Your task to perform on an android device: change the upload size in google photos Image 0: 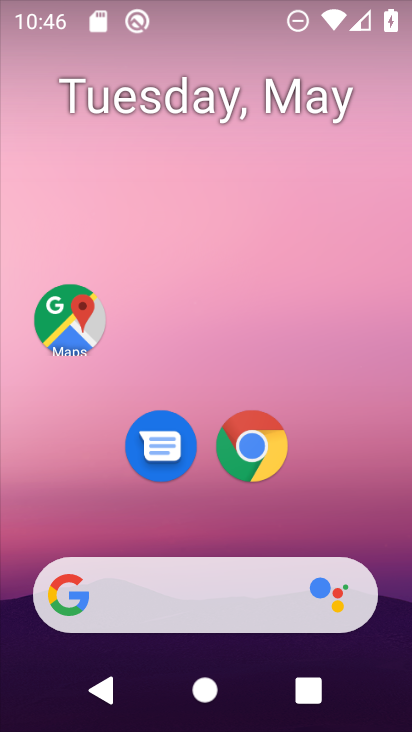
Step 0: drag from (198, 550) to (269, 3)
Your task to perform on an android device: change the upload size in google photos Image 1: 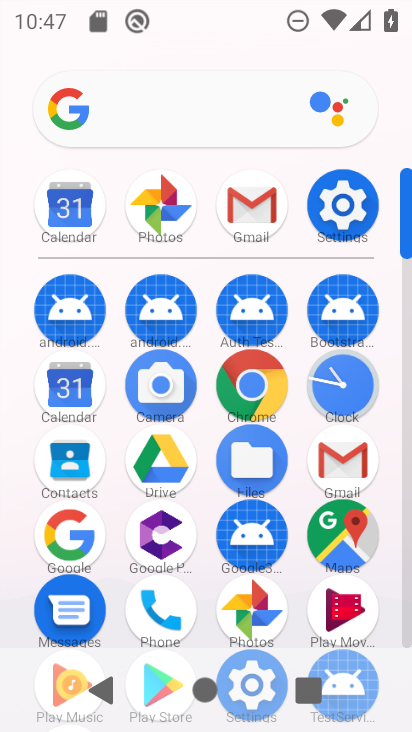
Step 1: click (260, 607)
Your task to perform on an android device: change the upload size in google photos Image 2: 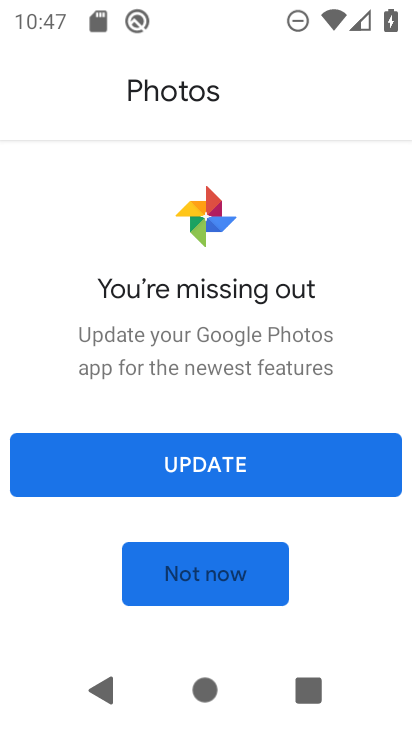
Step 2: click (195, 577)
Your task to perform on an android device: change the upload size in google photos Image 3: 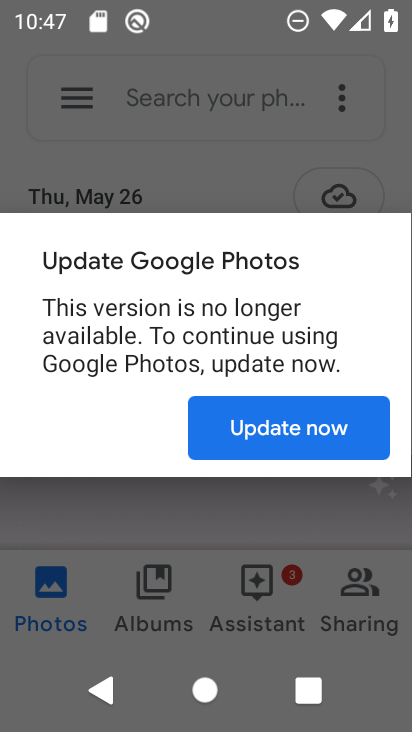
Step 3: click (272, 430)
Your task to perform on an android device: change the upload size in google photos Image 4: 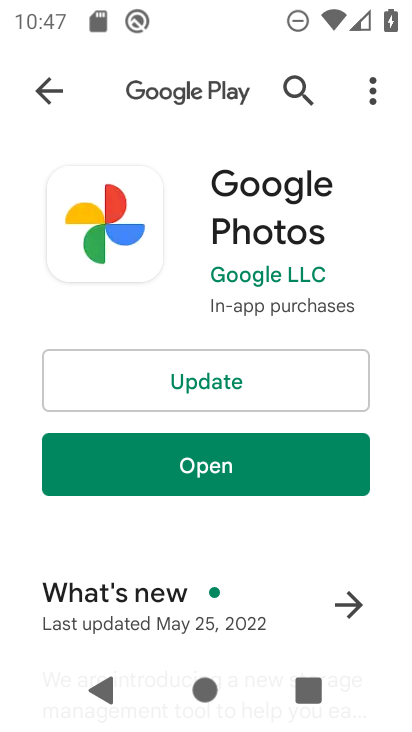
Step 4: click (257, 469)
Your task to perform on an android device: change the upload size in google photos Image 5: 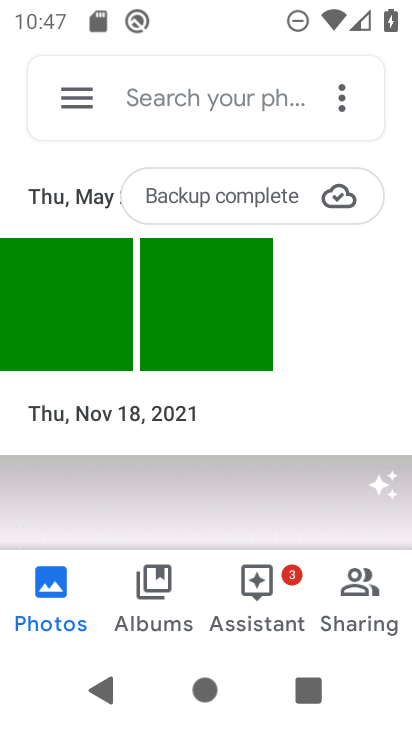
Step 5: click (84, 91)
Your task to perform on an android device: change the upload size in google photos Image 6: 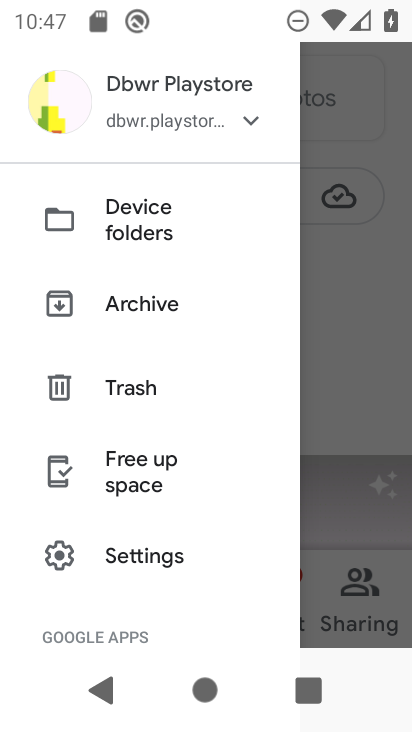
Step 6: click (150, 552)
Your task to perform on an android device: change the upload size in google photos Image 7: 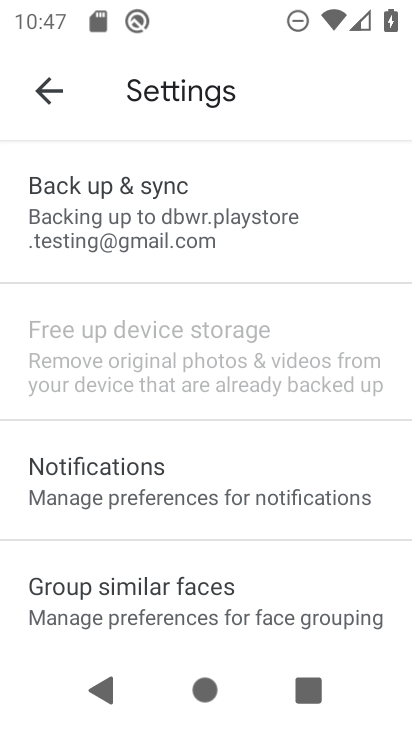
Step 7: click (171, 204)
Your task to perform on an android device: change the upload size in google photos Image 8: 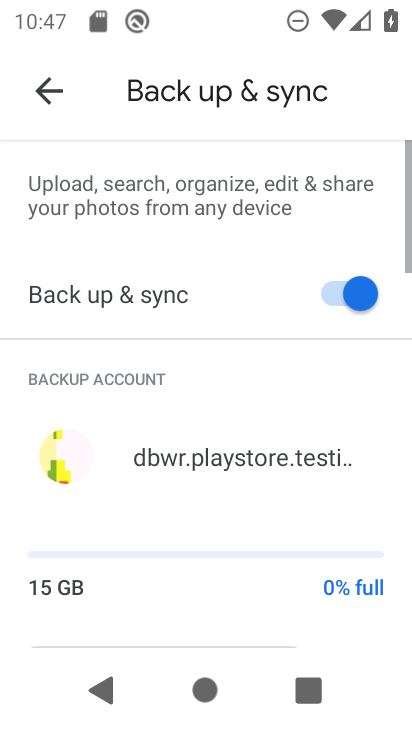
Step 8: drag from (179, 481) to (249, 199)
Your task to perform on an android device: change the upload size in google photos Image 9: 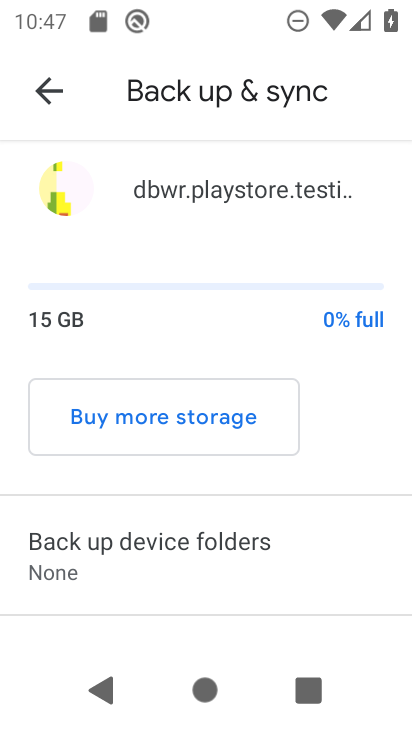
Step 9: drag from (228, 521) to (258, 339)
Your task to perform on an android device: change the upload size in google photos Image 10: 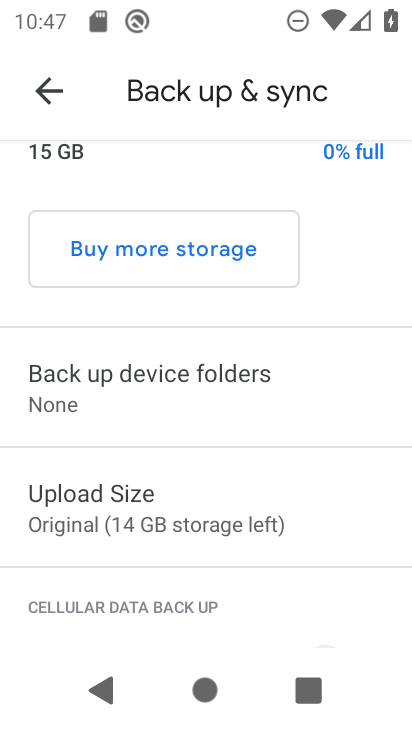
Step 10: click (212, 495)
Your task to perform on an android device: change the upload size in google photos Image 11: 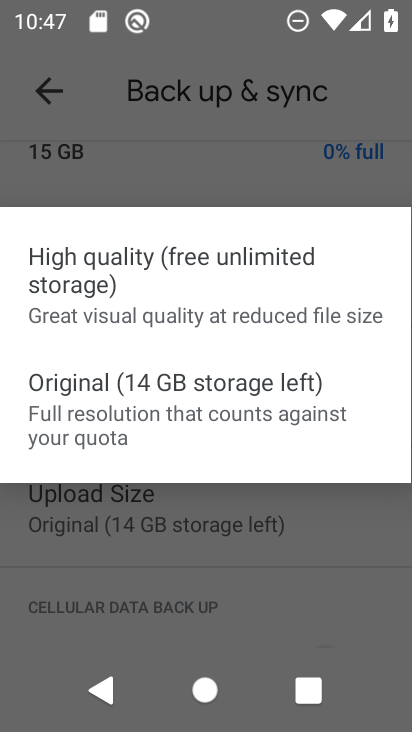
Step 11: click (158, 304)
Your task to perform on an android device: change the upload size in google photos Image 12: 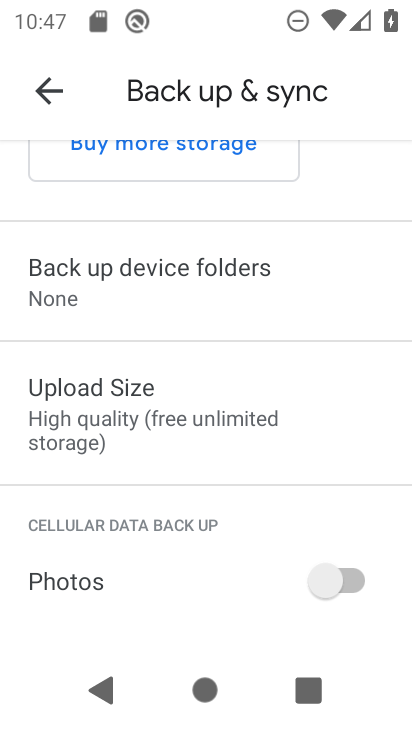
Step 12: task complete